Your task to perform on an android device: turn notification dots on Image 0: 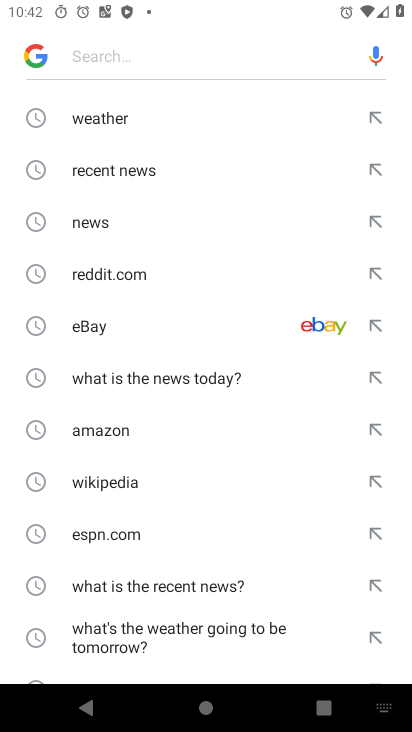
Step 0: press home button
Your task to perform on an android device: turn notification dots on Image 1: 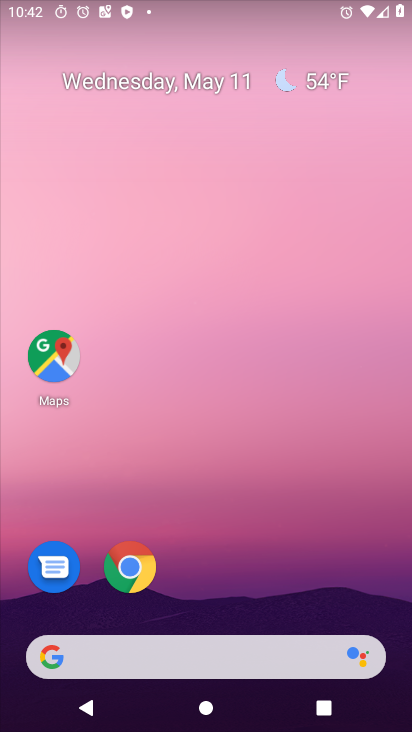
Step 1: drag from (252, 552) to (312, 4)
Your task to perform on an android device: turn notification dots on Image 2: 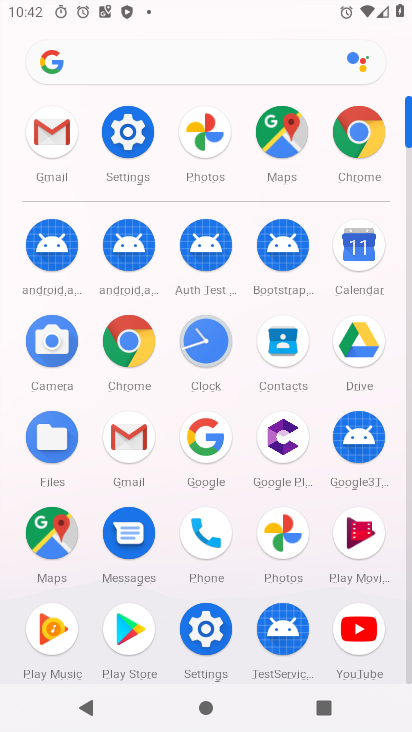
Step 2: click (216, 640)
Your task to perform on an android device: turn notification dots on Image 3: 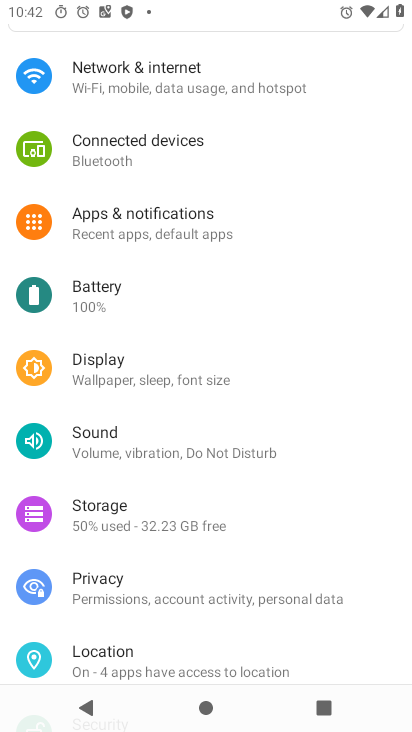
Step 3: click (152, 236)
Your task to perform on an android device: turn notification dots on Image 4: 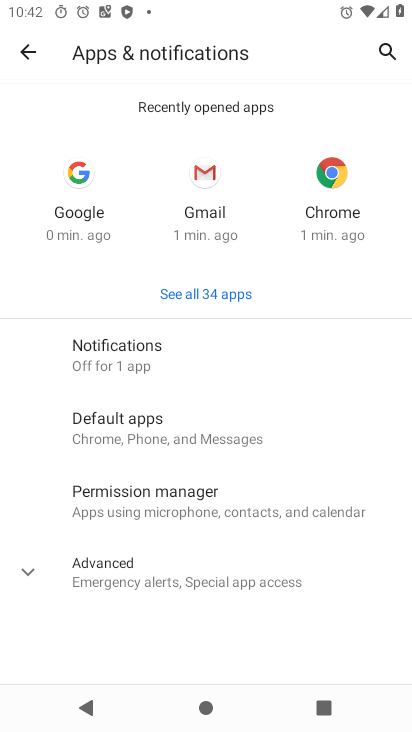
Step 4: click (131, 372)
Your task to perform on an android device: turn notification dots on Image 5: 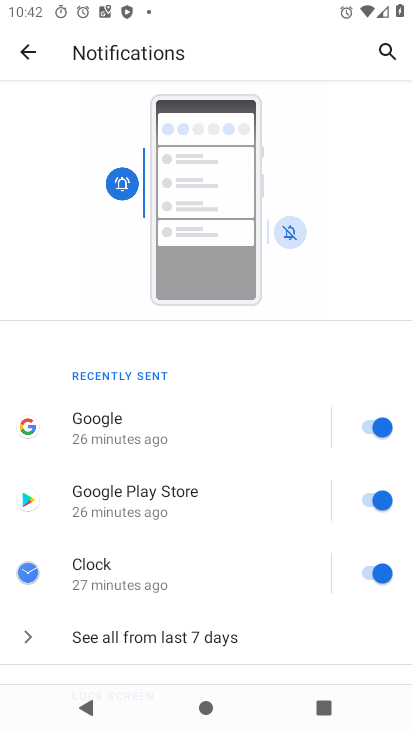
Step 5: drag from (154, 526) to (213, 153)
Your task to perform on an android device: turn notification dots on Image 6: 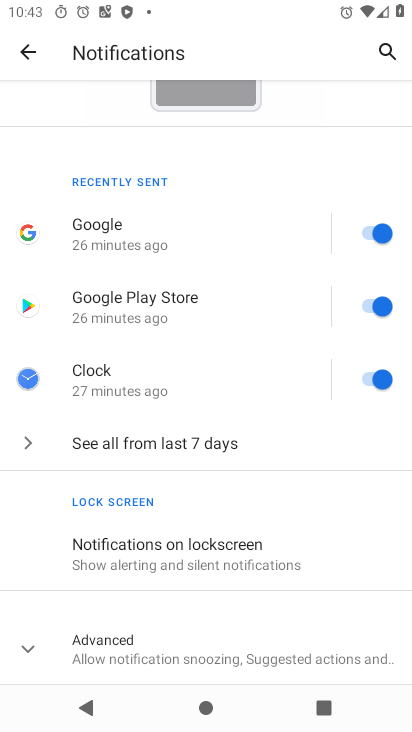
Step 6: click (122, 643)
Your task to perform on an android device: turn notification dots on Image 7: 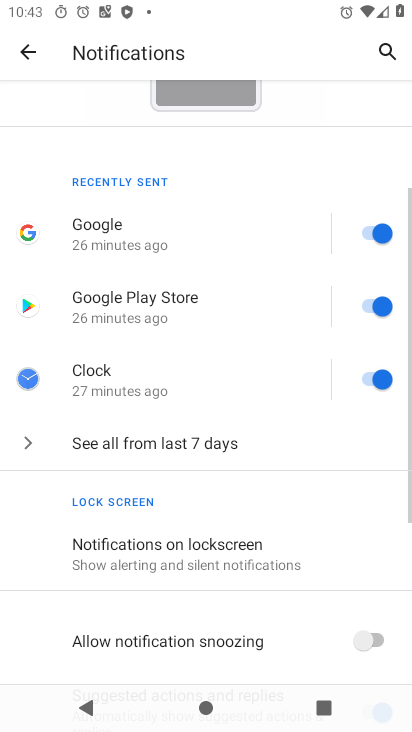
Step 7: drag from (197, 617) to (252, 159)
Your task to perform on an android device: turn notification dots on Image 8: 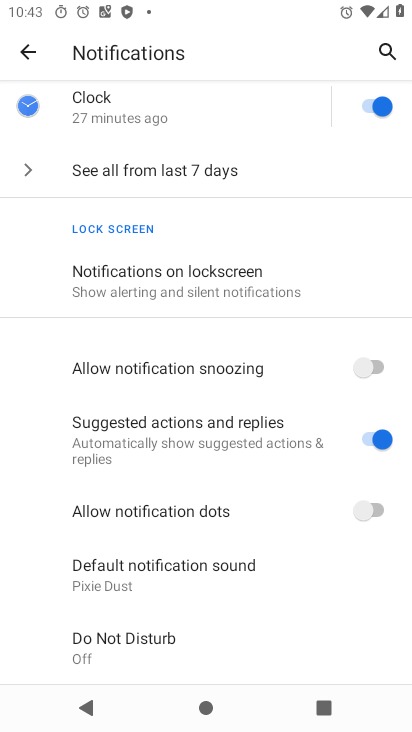
Step 8: click (391, 508)
Your task to perform on an android device: turn notification dots on Image 9: 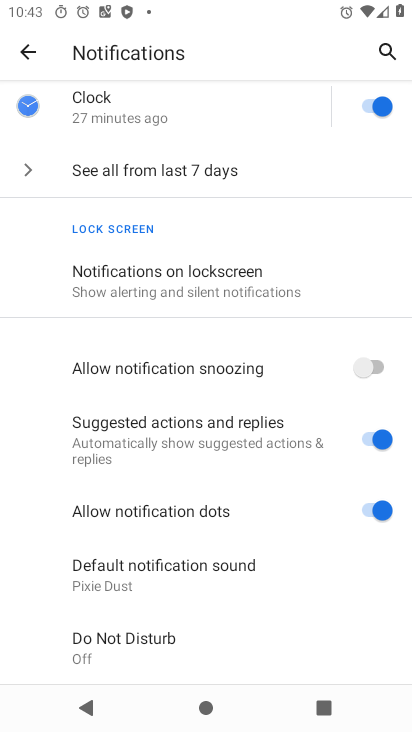
Step 9: task complete